Your task to perform on an android device: Check the news Image 0: 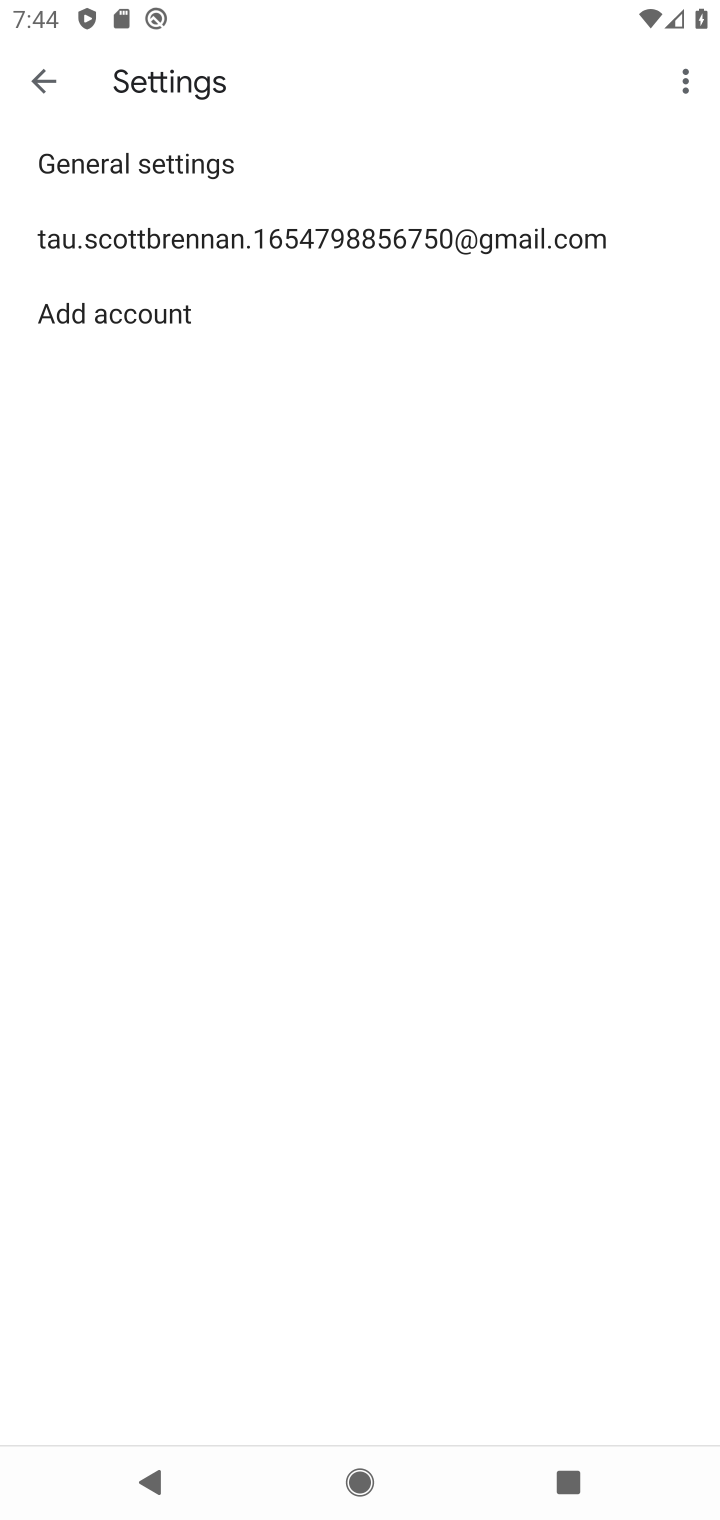
Step 0: press home button
Your task to perform on an android device: Check the news Image 1: 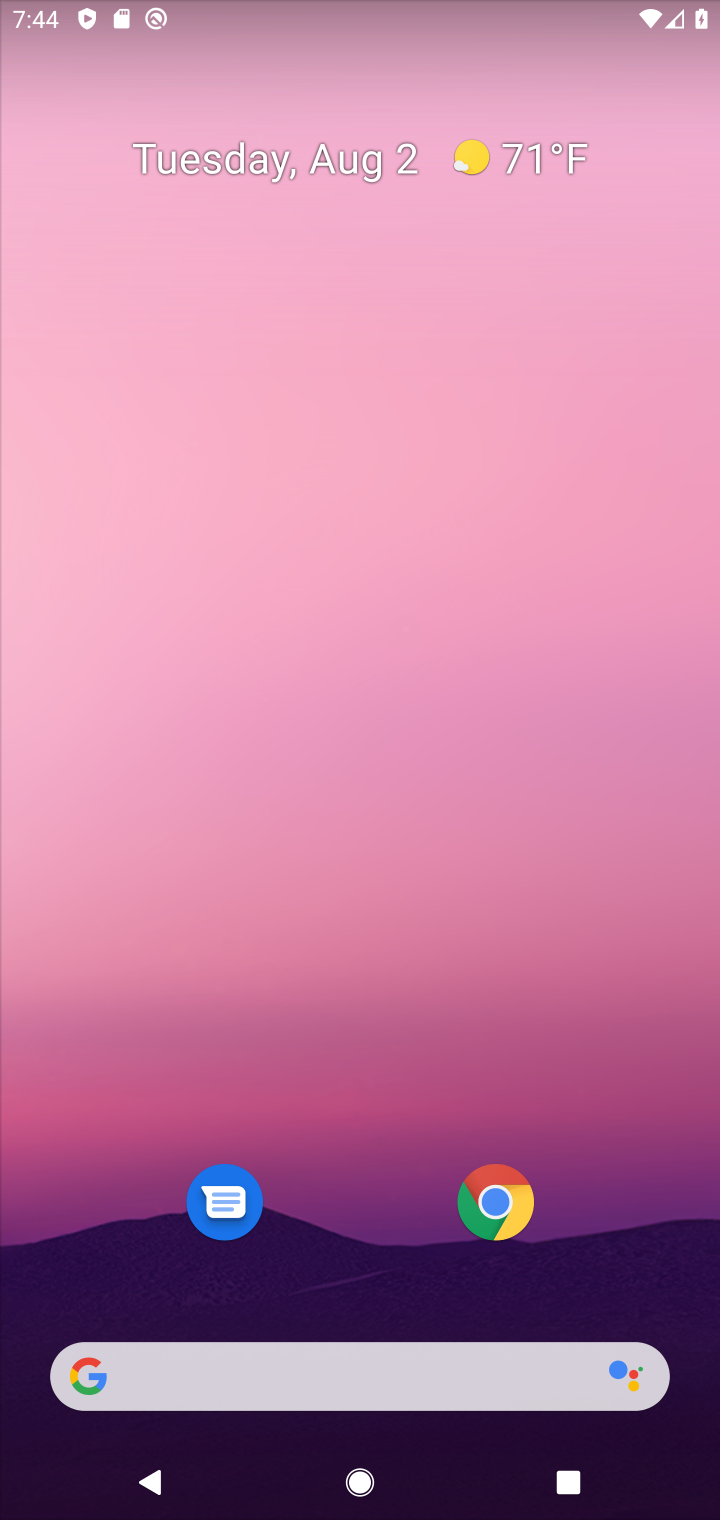
Step 1: click (245, 1366)
Your task to perform on an android device: Check the news Image 2: 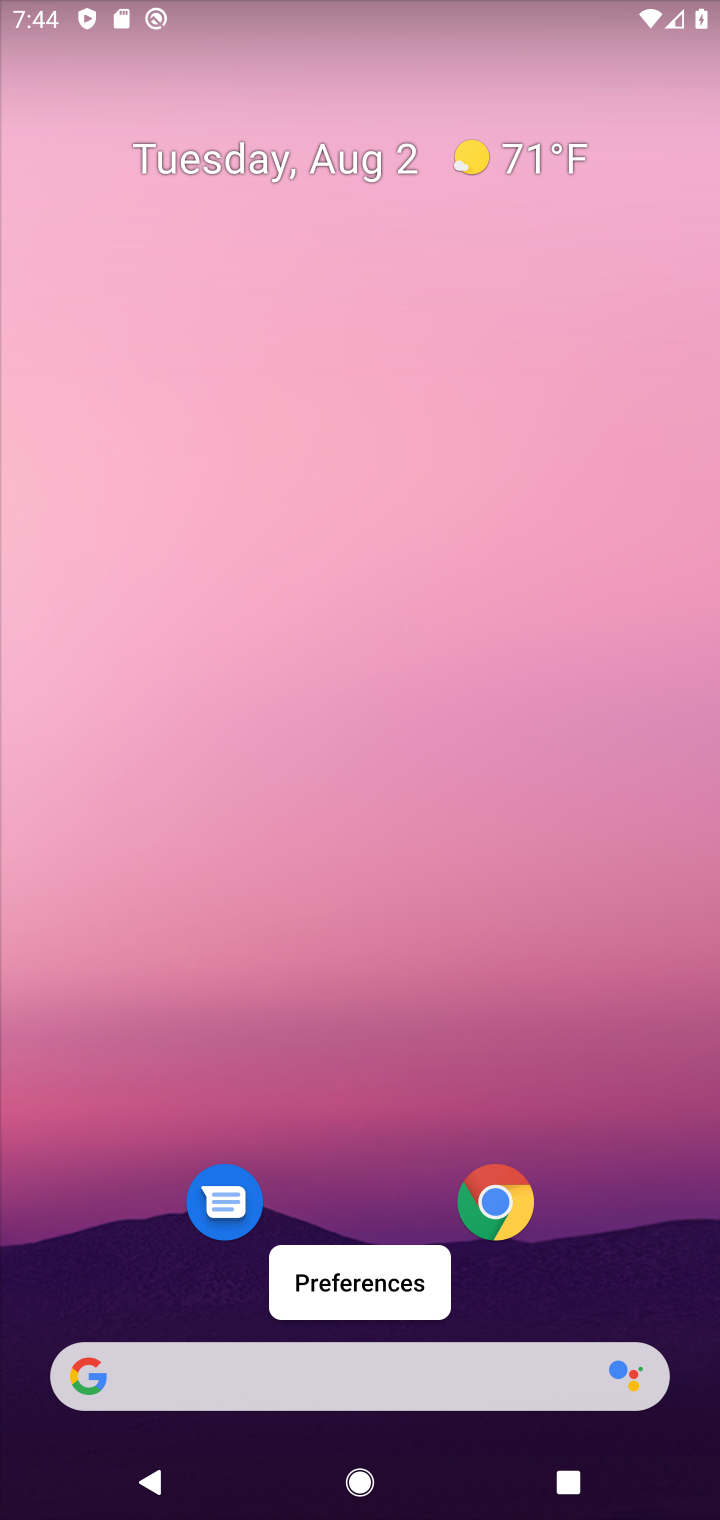
Step 2: click (230, 1377)
Your task to perform on an android device: Check the news Image 3: 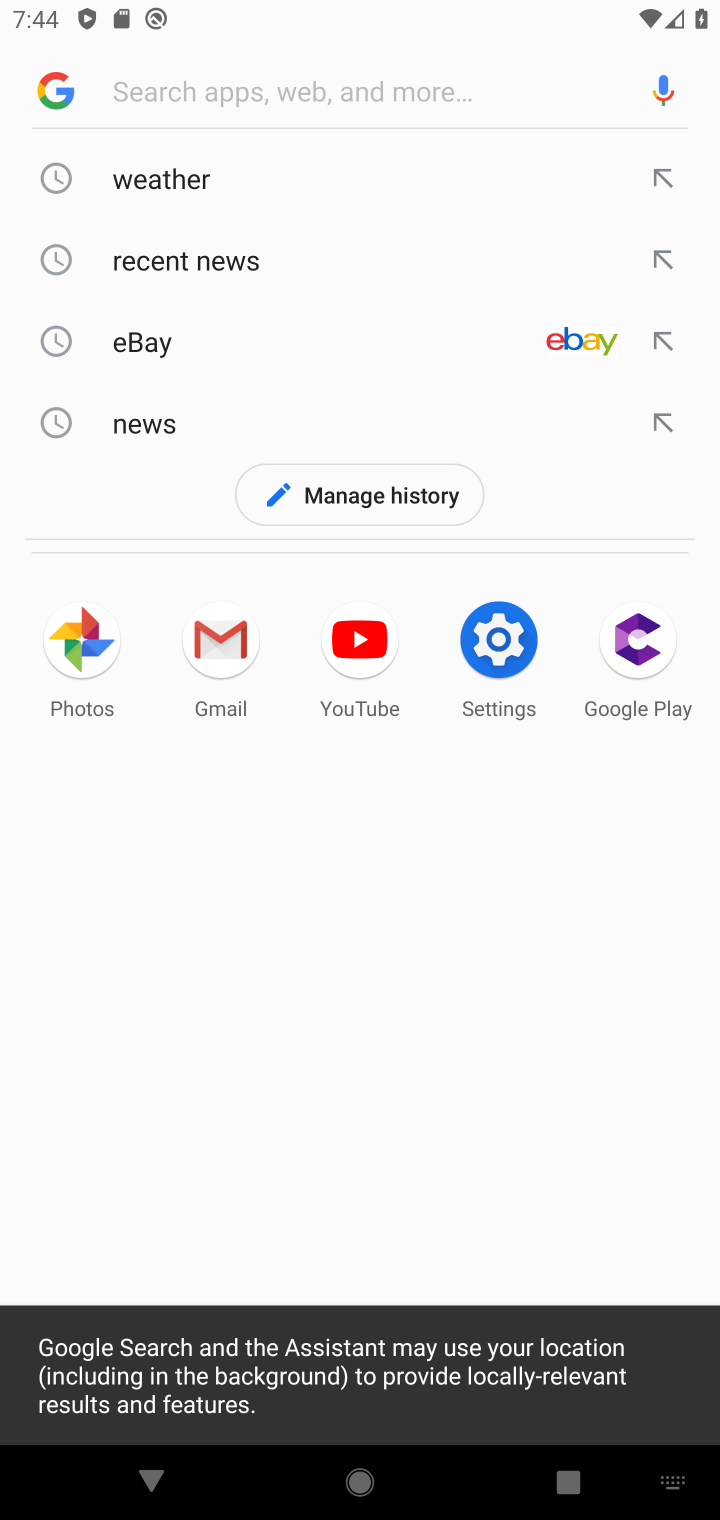
Step 3: click (153, 441)
Your task to perform on an android device: Check the news Image 4: 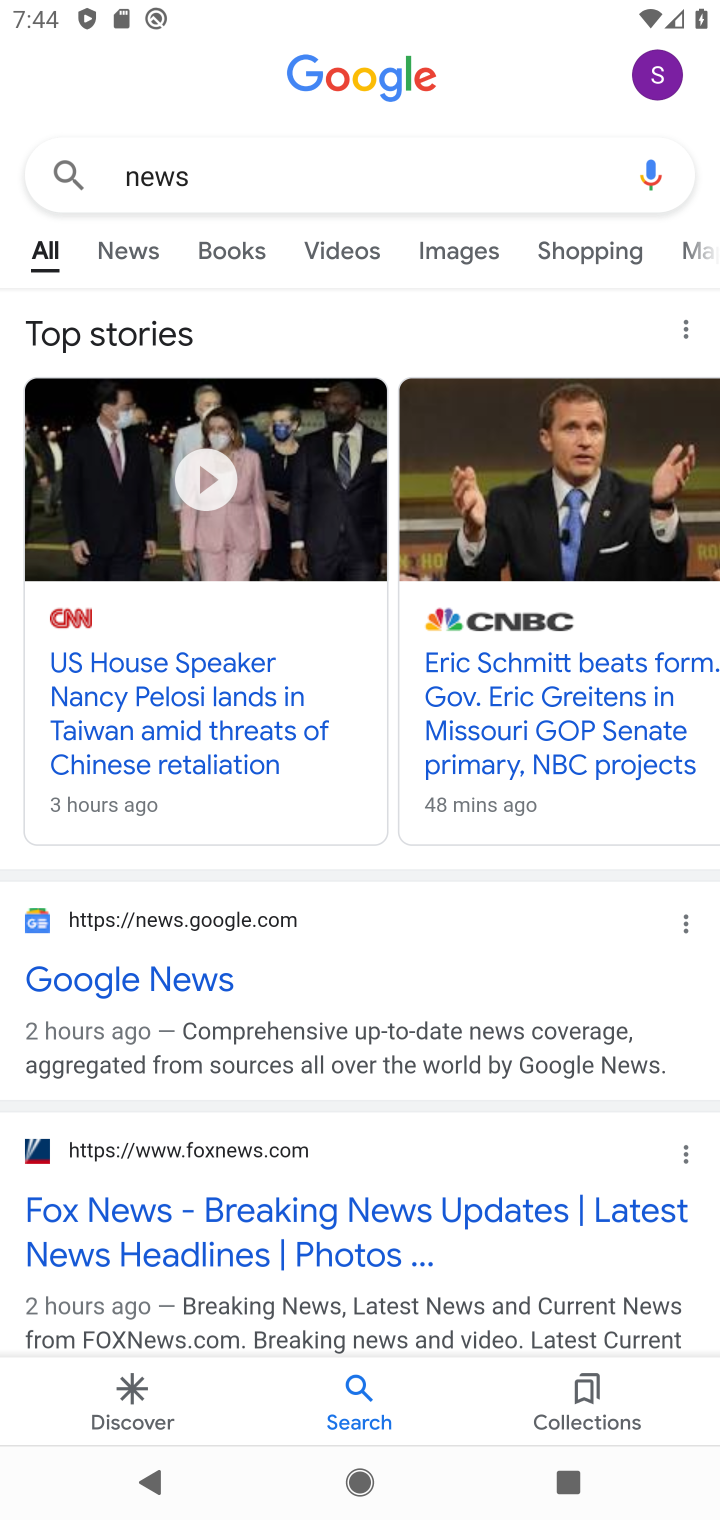
Step 4: click (117, 250)
Your task to perform on an android device: Check the news Image 5: 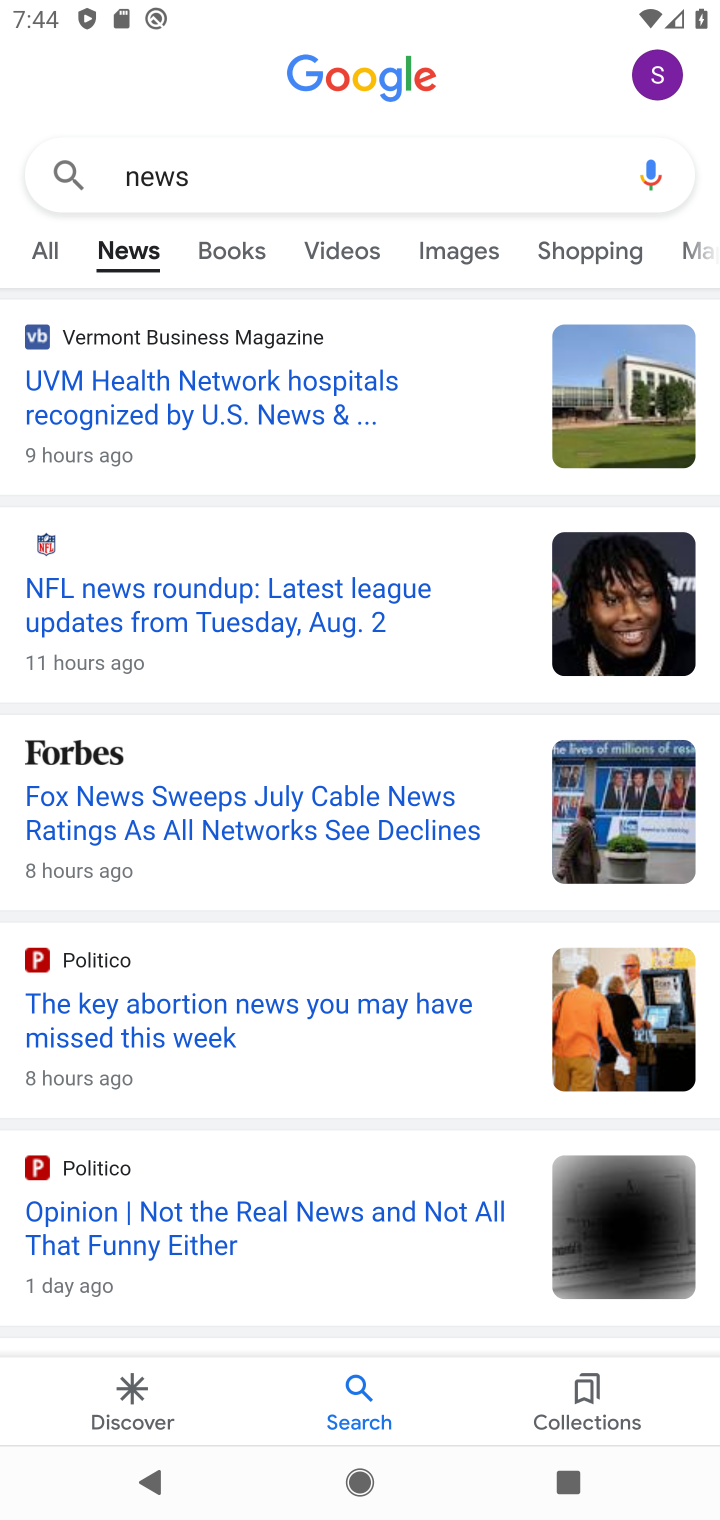
Step 5: task complete